Your task to perform on an android device: Go to eBay Image 0: 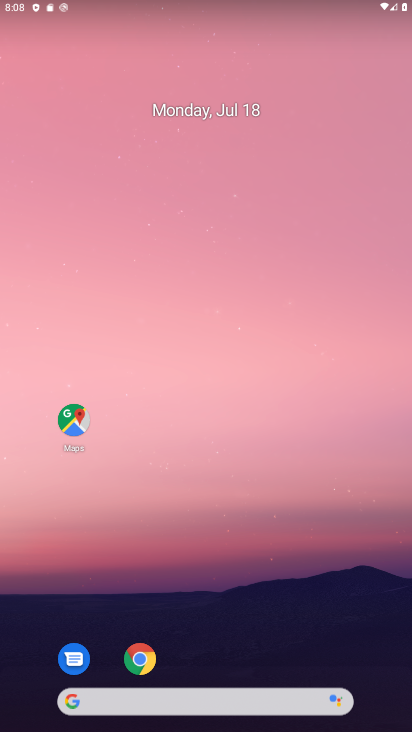
Step 0: drag from (149, 498) to (71, 107)
Your task to perform on an android device: Go to eBay Image 1: 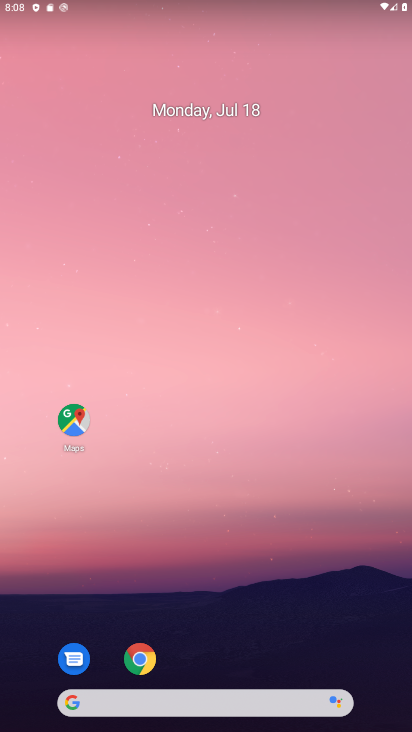
Step 1: drag from (237, 259) to (180, 25)
Your task to perform on an android device: Go to eBay Image 2: 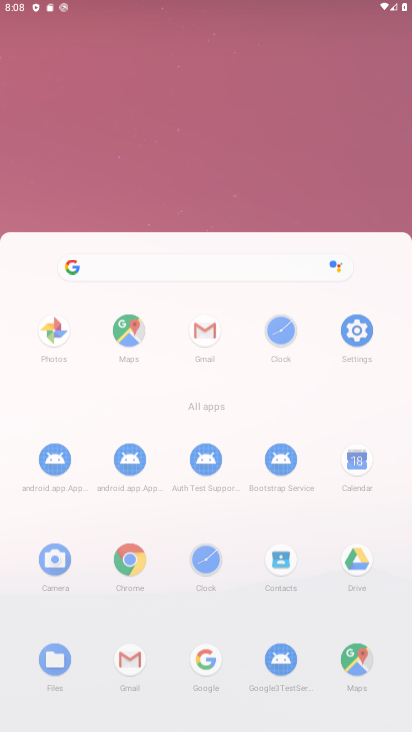
Step 2: drag from (192, 284) to (192, 218)
Your task to perform on an android device: Go to eBay Image 3: 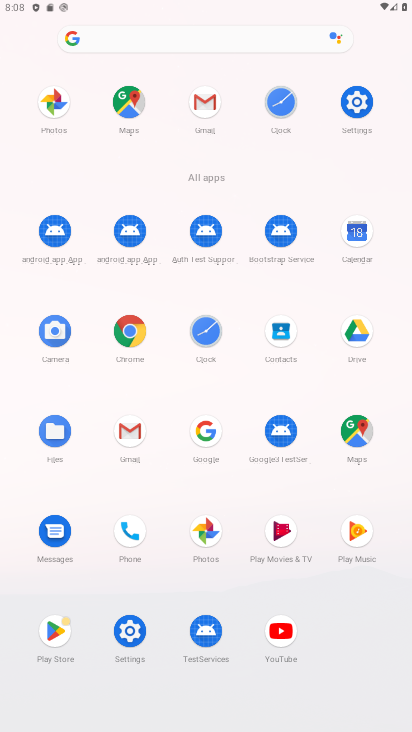
Step 3: click (131, 332)
Your task to perform on an android device: Go to eBay Image 4: 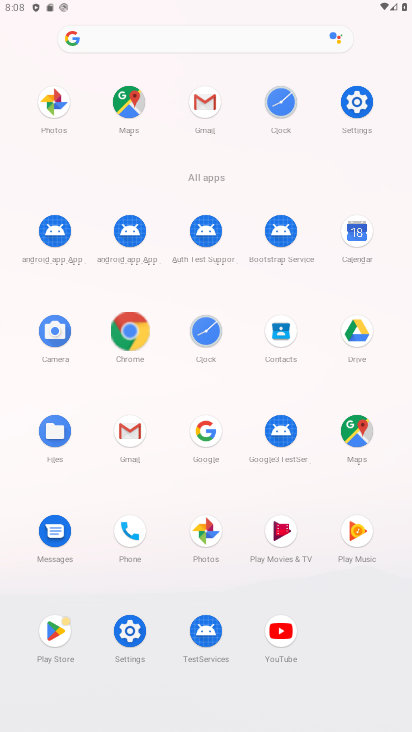
Step 4: click (131, 332)
Your task to perform on an android device: Go to eBay Image 5: 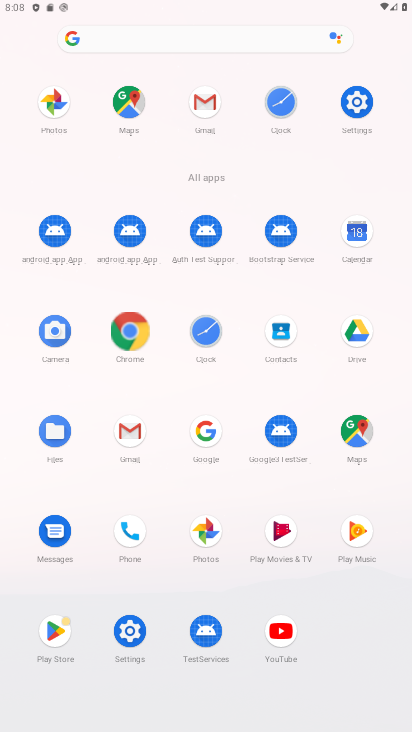
Step 5: click (131, 332)
Your task to perform on an android device: Go to eBay Image 6: 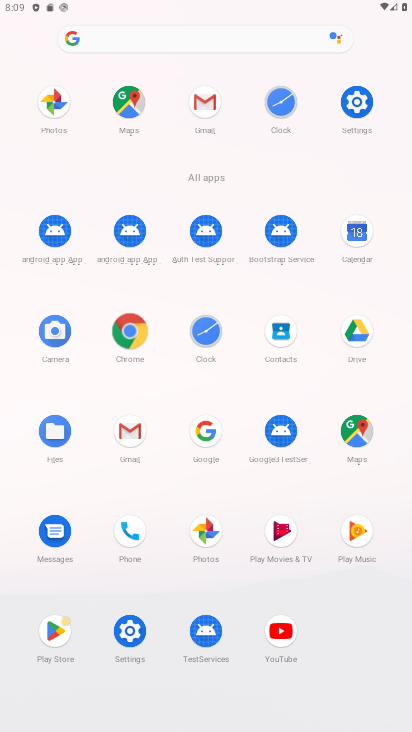
Step 6: click (131, 332)
Your task to perform on an android device: Go to eBay Image 7: 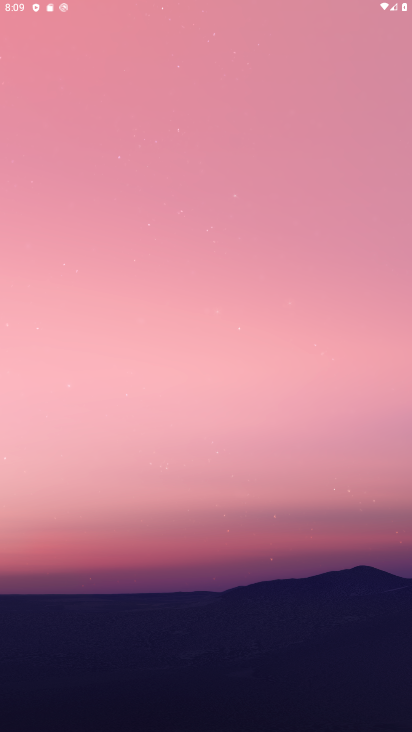
Step 7: click (139, 333)
Your task to perform on an android device: Go to eBay Image 8: 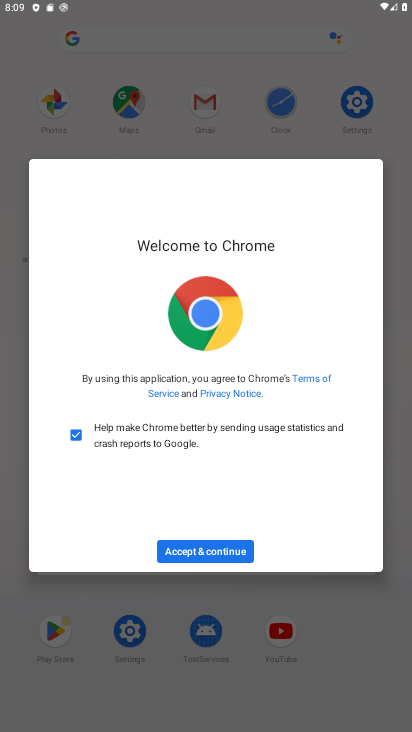
Step 8: click (214, 549)
Your task to perform on an android device: Go to eBay Image 9: 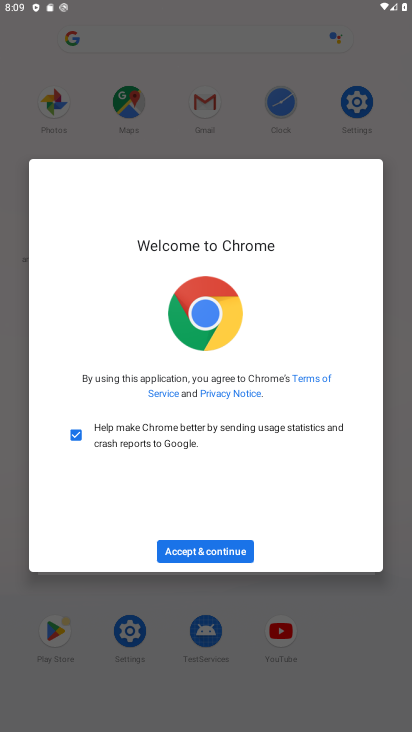
Step 9: click (214, 549)
Your task to perform on an android device: Go to eBay Image 10: 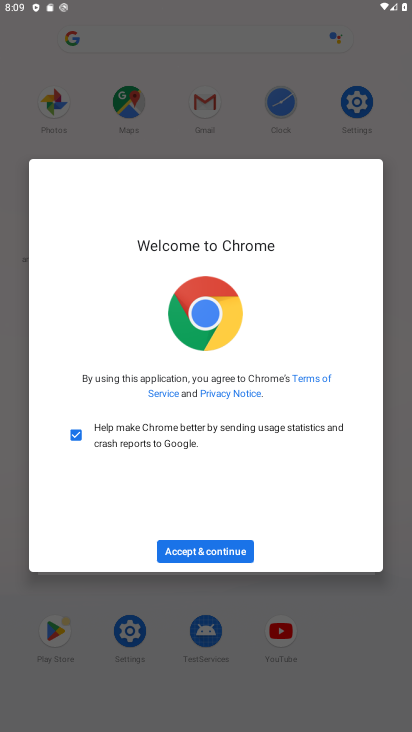
Step 10: click (221, 552)
Your task to perform on an android device: Go to eBay Image 11: 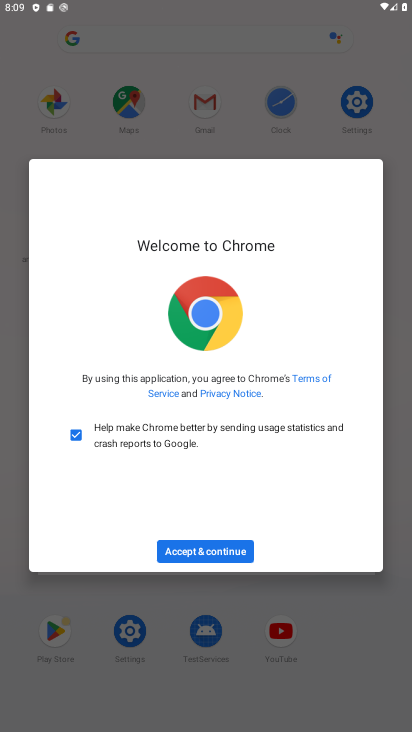
Step 11: click (229, 553)
Your task to perform on an android device: Go to eBay Image 12: 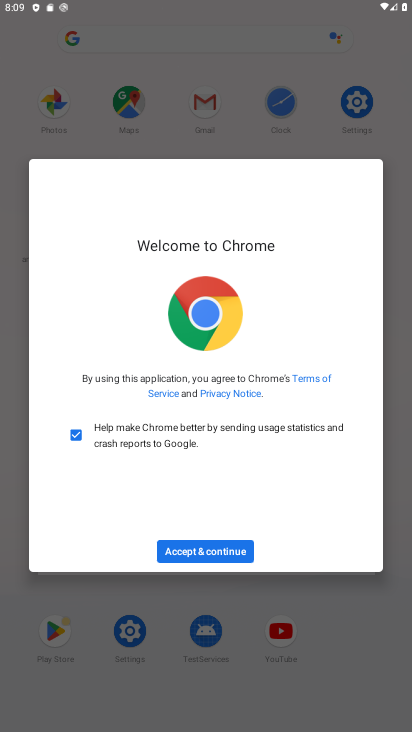
Step 12: click (230, 553)
Your task to perform on an android device: Go to eBay Image 13: 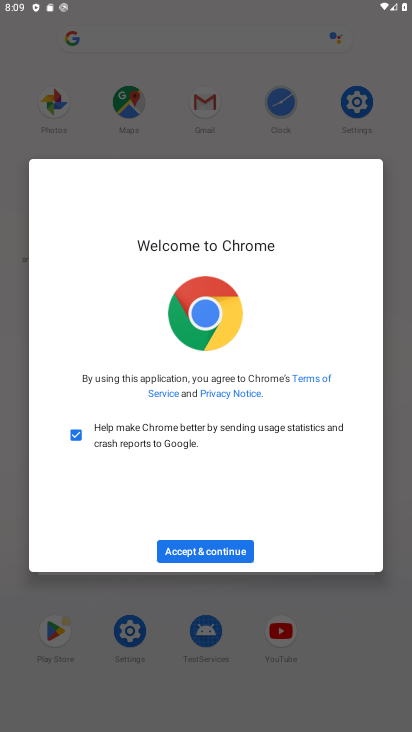
Step 13: click (236, 545)
Your task to perform on an android device: Go to eBay Image 14: 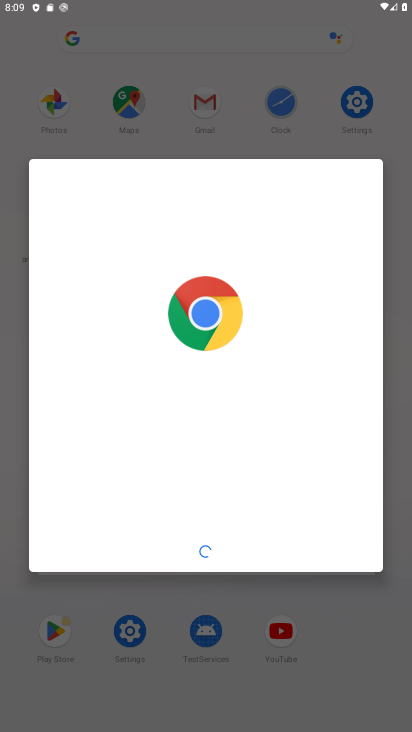
Step 14: click (234, 545)
Your task to perform on an android device: Go to eBay Image 15: 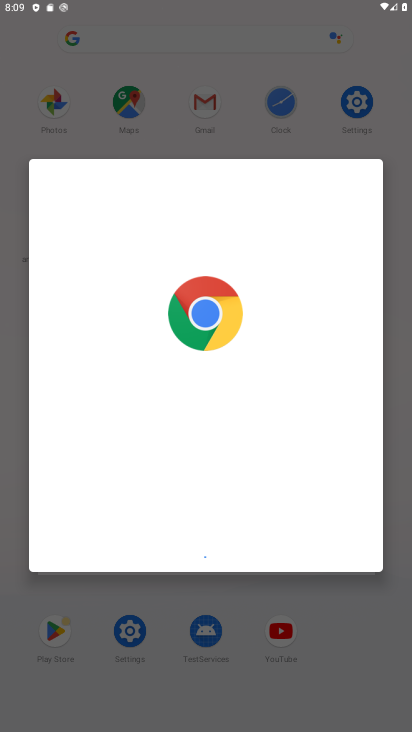
Step 15: click (236, 544)
Your task to perform on an android device: Go to eBay Image 16: 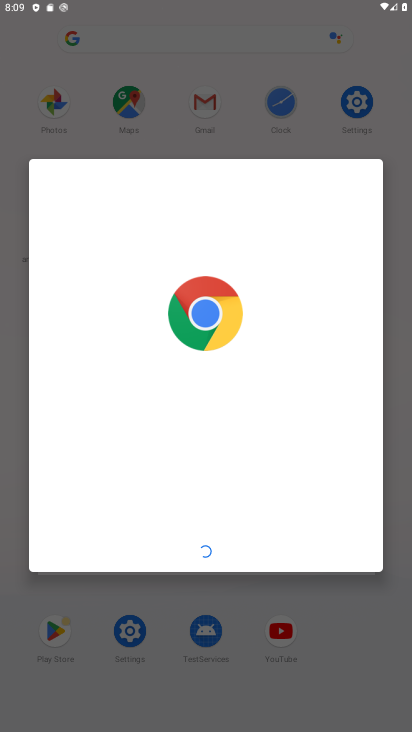
Step 16: click (236, 541)
Your task to perform on an android device: Go to eBay Image 17: 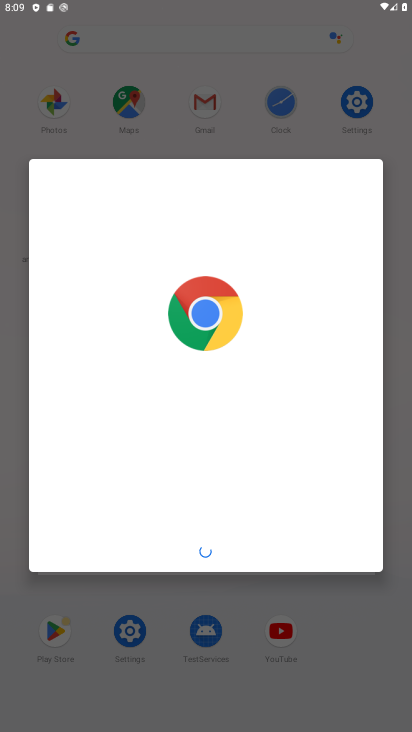
Step 17: click (236, 541)
Your task to perform on an android device: Go to eBay Image 18: 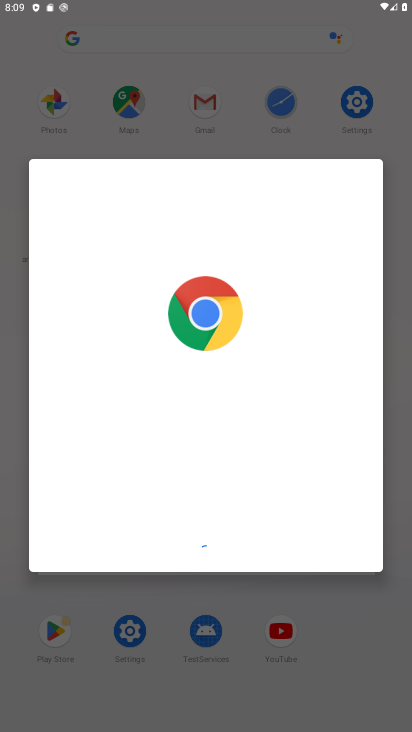
Step 18: click (236, 541)
Your task to perform on an android device: Go to eBay Image 19: 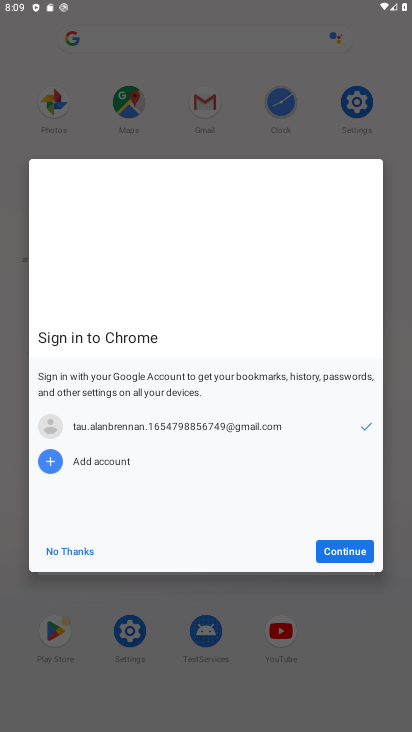
Step 19: click (345, 550)
Your task to perform on an android device: Go to eBay Image 20: 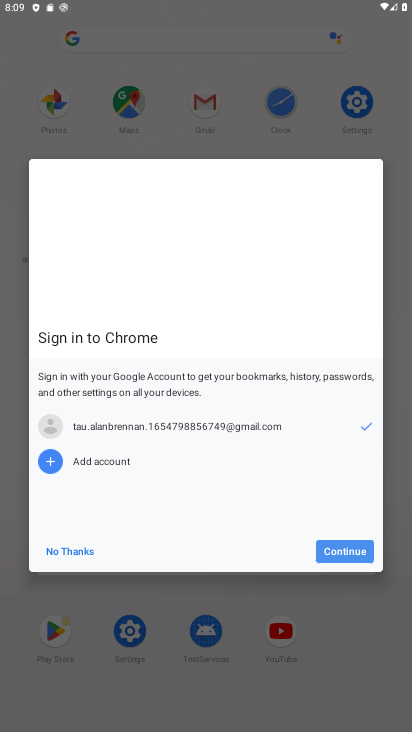
Step 20: click (346, 549)
Your task to perform on an android device: Go to eBay Image 21: 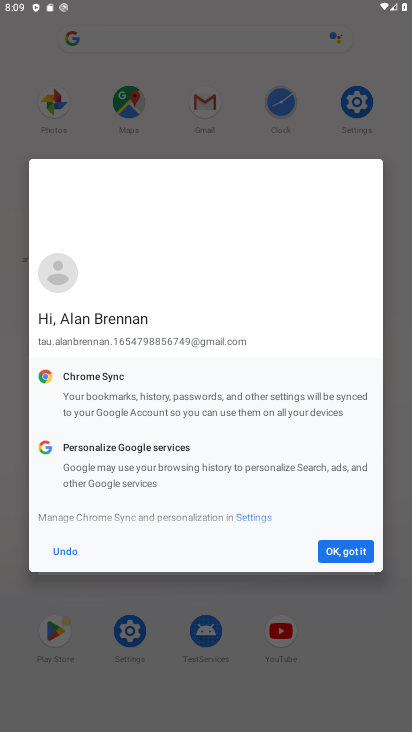
Step 21: click (347, 549)
Your task to perform on an android device: Go to eBay Image 22: 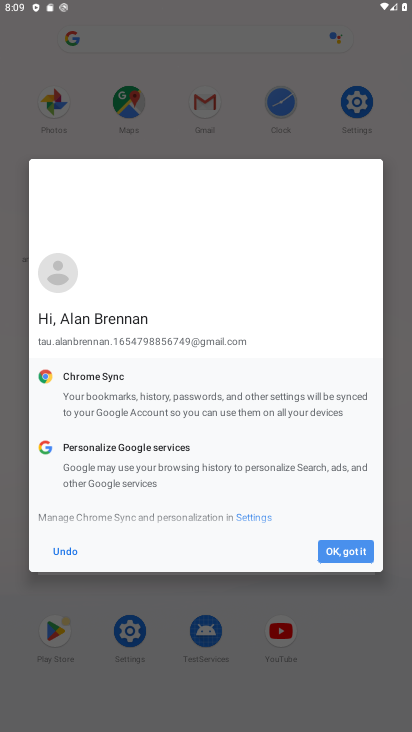
Step 22: click (347, 549)
Your task to perform on an android device: Go to eBay Image 23: 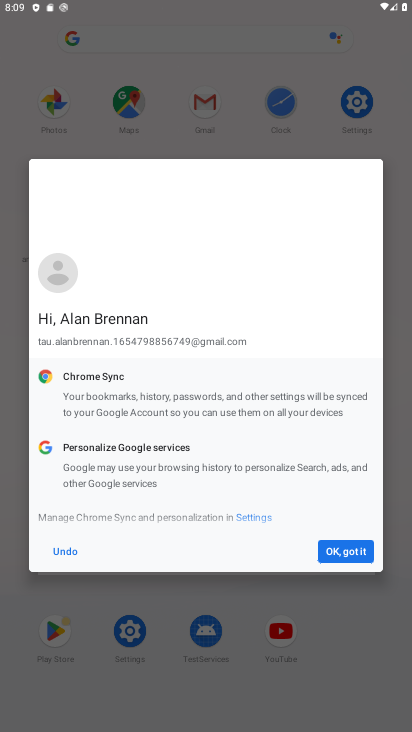
Step 23: click (347, 549)
Your task to perform on an android device: Go to eBay Image 24: 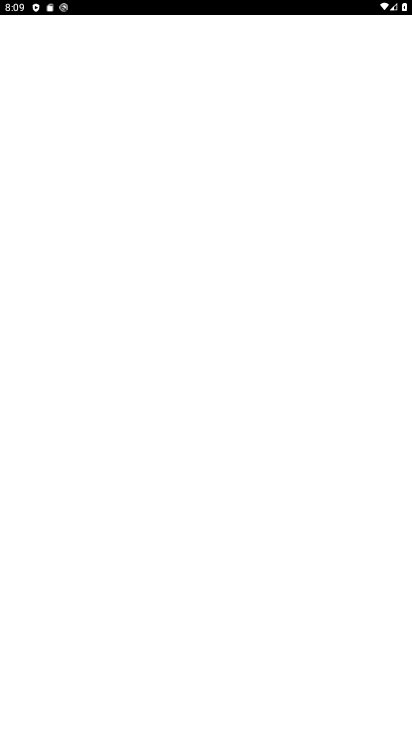
Step 24: click (353, 538)
Your task to perform on an android device: Go to eBay Image 25: 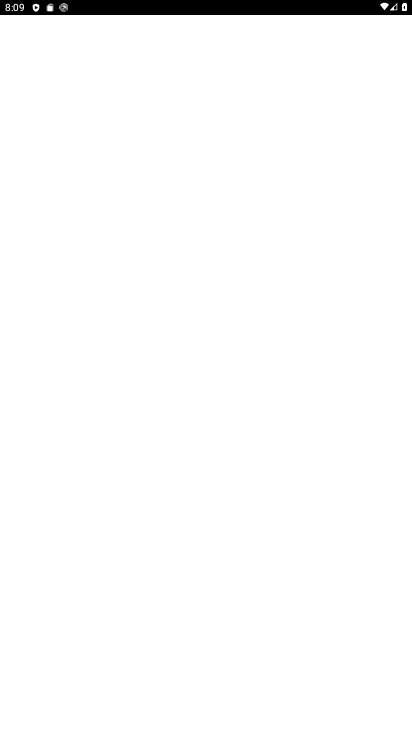
Step 25: click (353, 538)
Your task to perform on an android device: Go to eBay Image 26: 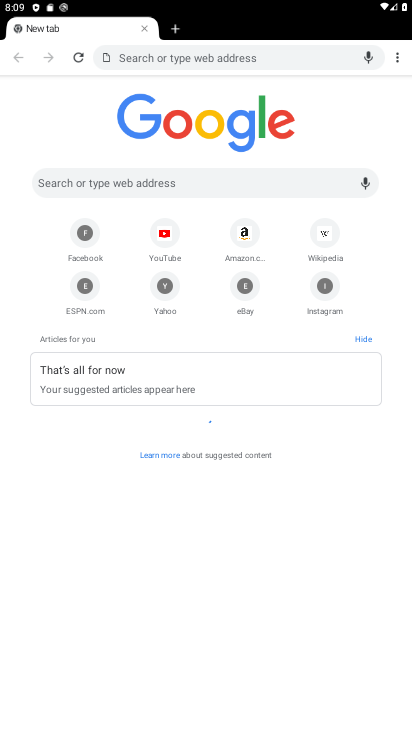
Step 26: click (239, 295)
Your task to perform on an android device: Go to eBay Image 27: 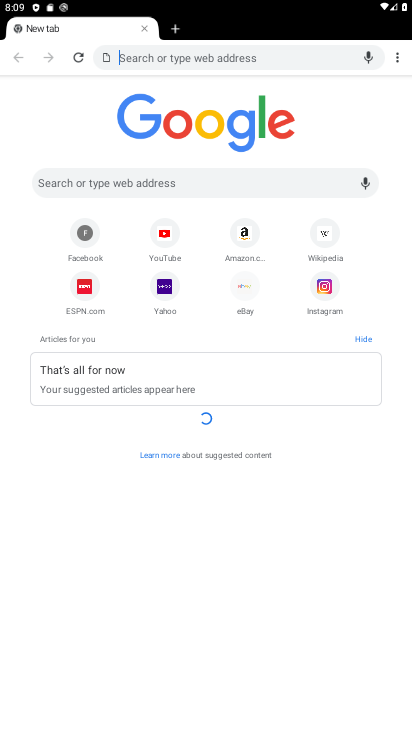
Step 27: click (256, 292)
Your task to perform on an android device: Go to eBay Image 28: 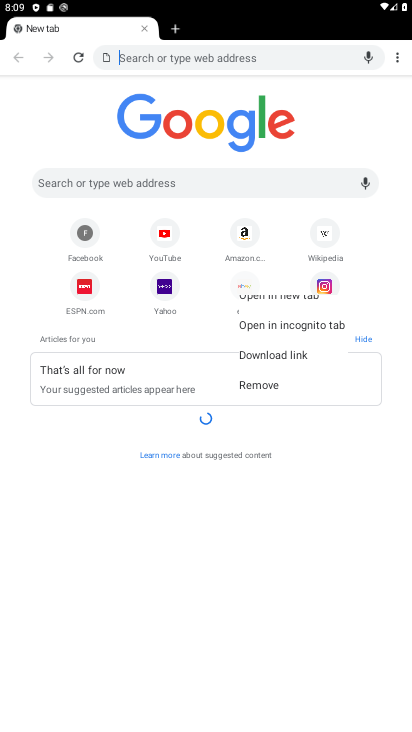
Step 28: click (256, 292)
Your task to perform on an android device: Go to eBay Image 29: 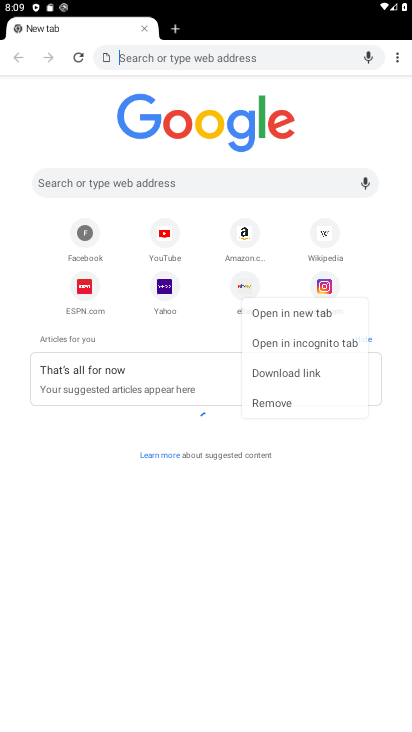
Step 29: click (255, 293)
Your task to perform on an android device: Go to eBay Image 30: 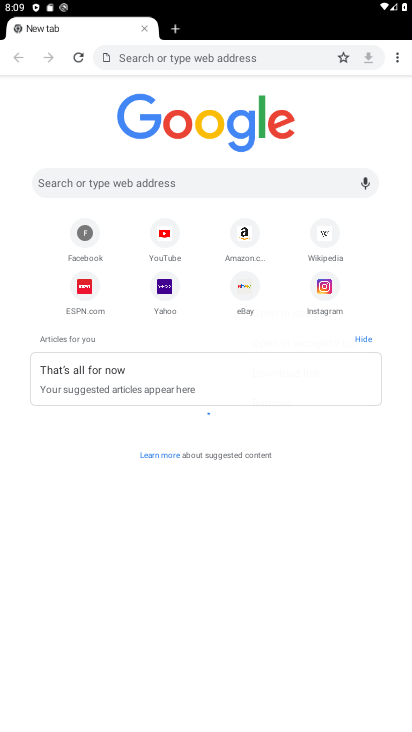
Step 30: click (254, 293)
Your task to perform on an android device: Go to eBay Image 31: 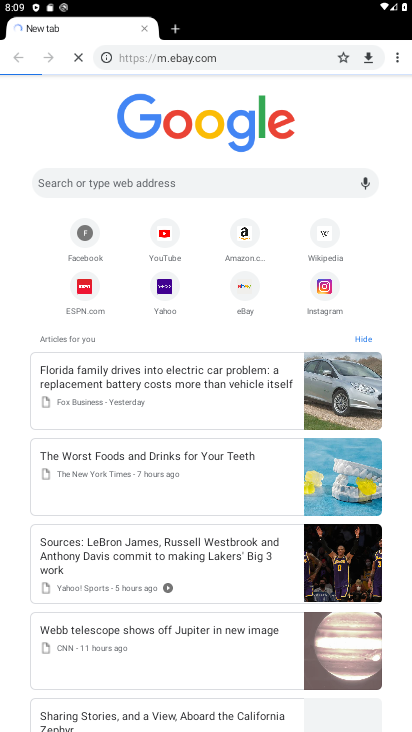
Step 31: click (244, 298)
Your task to perform on an android device: Go to eBay Image 32: 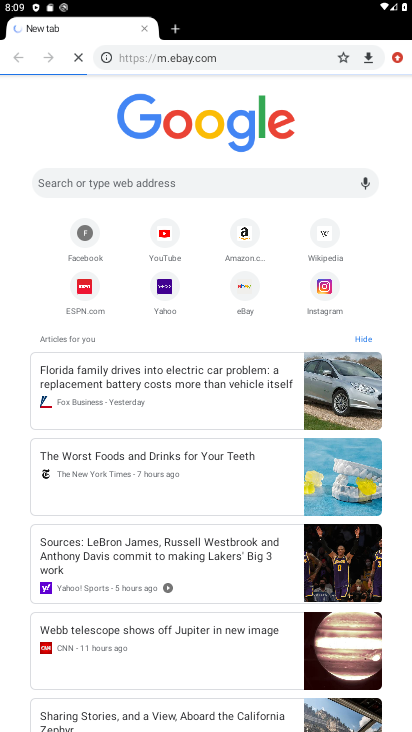
Step 32: task complete